Your task to perform on an android device: Is it going to rain today? Image 0: 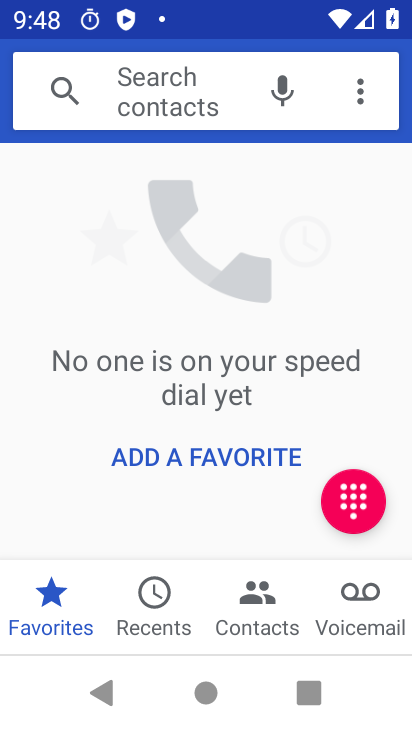
Step 0: press home button
Your task to perform on an android device: Is it going to rain today? Image 1: 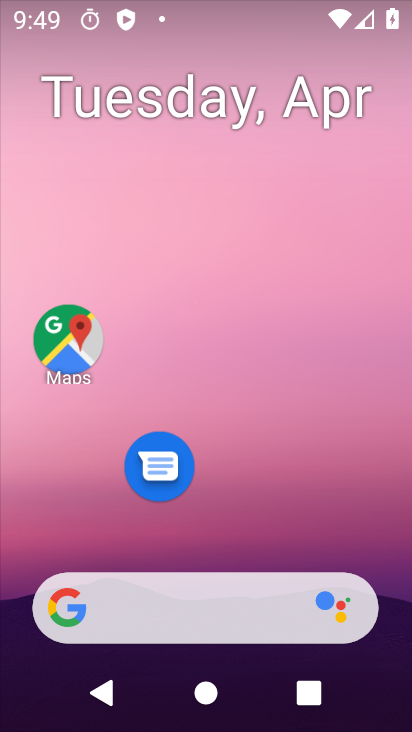
Step 1: drag from (267, 498) to (199, 82)
Your task to perform on an android device: Is it going to rain today? Image 2: 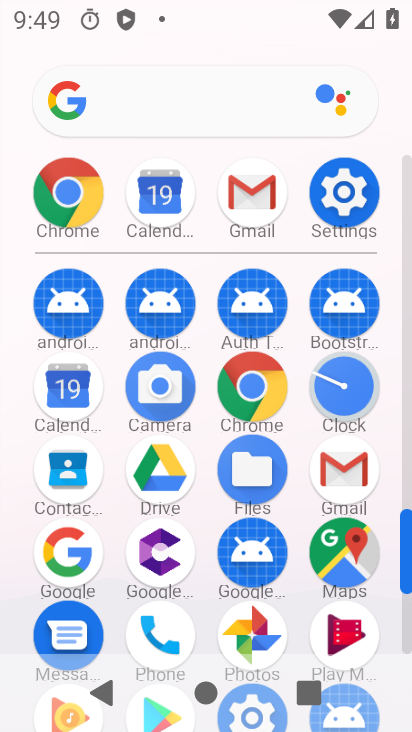
Step 2: click (223, 125)
Your task to perform on an android device: Is it going to rain today? Image 3: 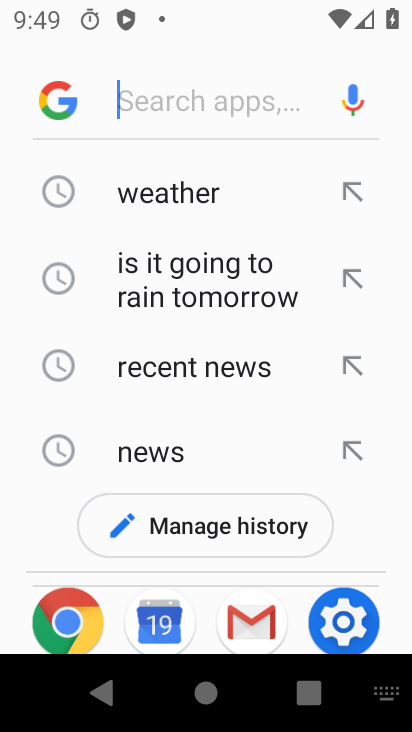
Step 3: click (212, 178)
Your task to perform on an android device: Is it going to rain today? Image 4: 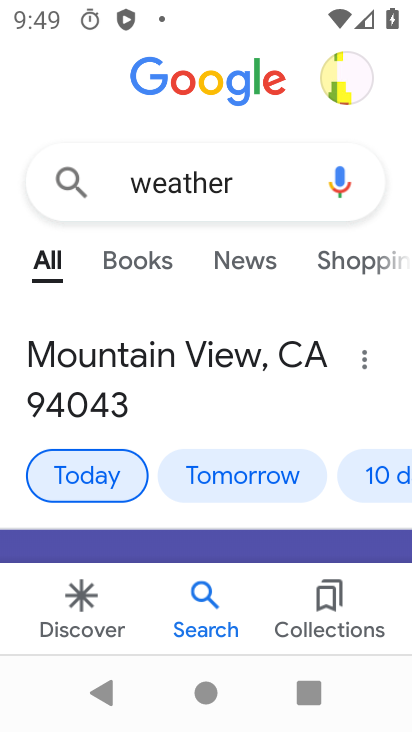
Step 4: task complete